Your task to perform on an android device: What's the weather going to be tomorrow? Image 0: 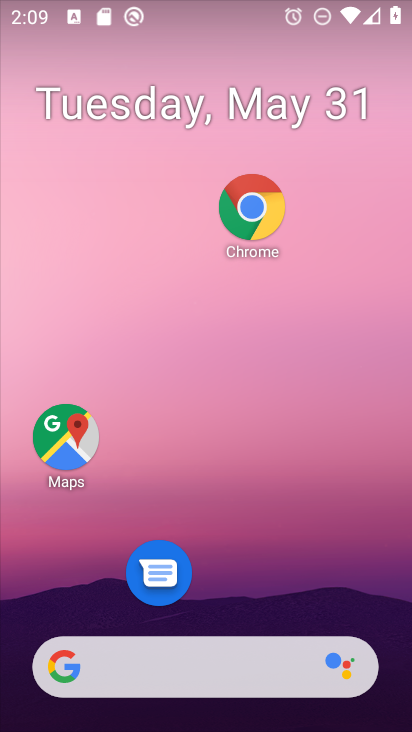
Step 0: click (307, 94)
Your task to perform on an android device: What's the weather going to be tomorrow? Image 1: 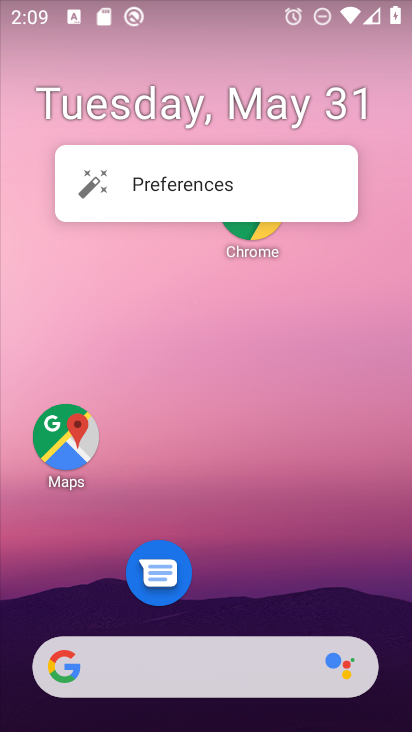
Step 1: drag from (289, 625) to (348, 52)
Your task to perform on an android device: What's the weather going to be tomorrow? Image 2: 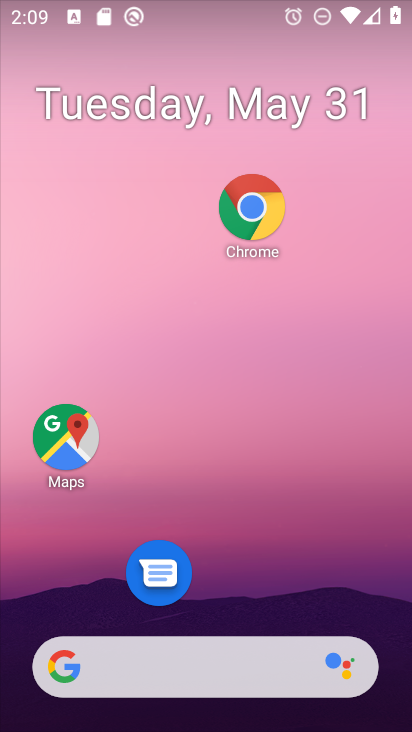
Step 2: drag from (269, 657) to (297, 143)
Your task to perform on an android device: What's the weather going to be tomorrow? Image 3: 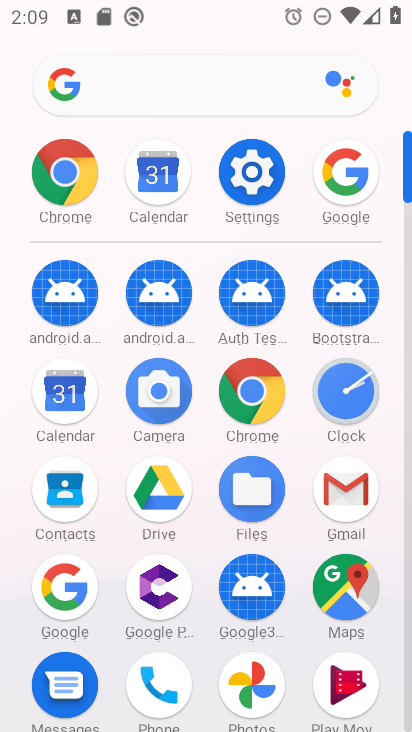
Step 3: click (65, 590)
Your task to perform on an android device: What's the weather going to be tomorrow? Image 4: 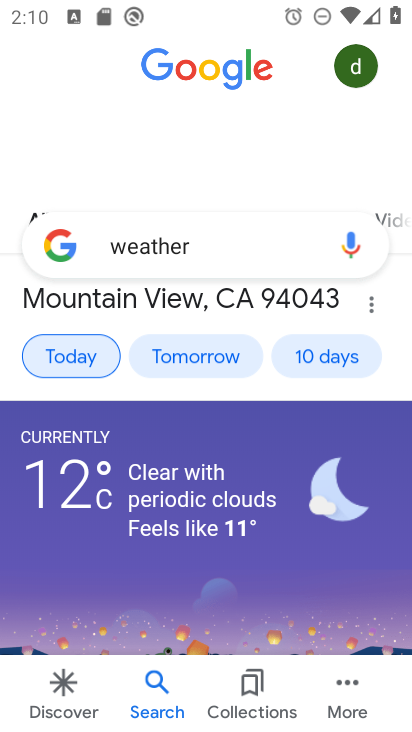
Step 4: click (203, 366)
Your task to perform on an android device: What's the weather going to be tomorrow? Image 5: 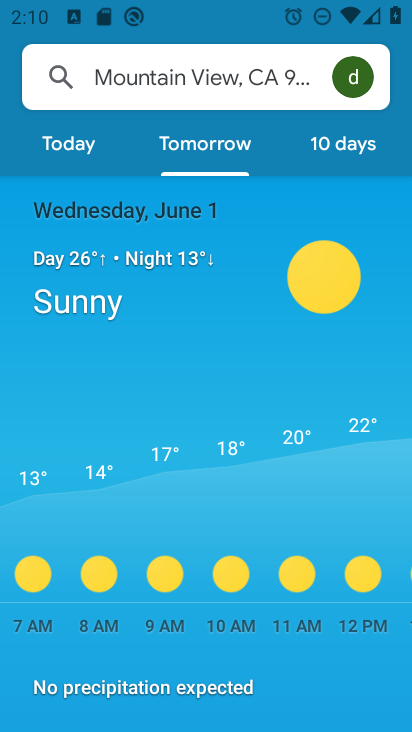
Step 5: task complete